Your task to perform on an android device: turn off translation in the chrome app Image 0: 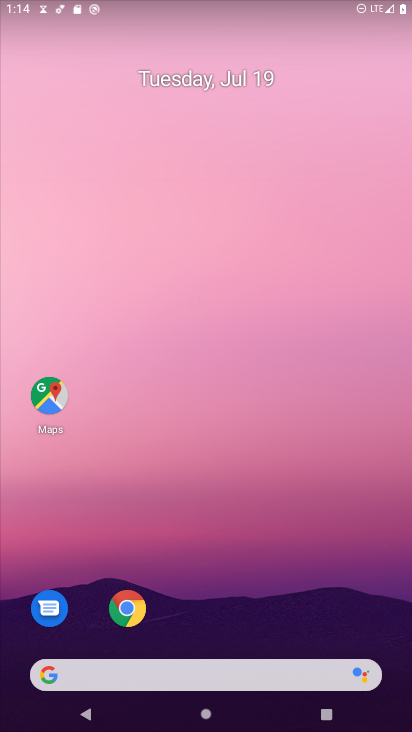
Step 0: drag from (207, 674) to (276, 5)
Your task to perform on an android device: turn off translation in the chrome app Image 1: 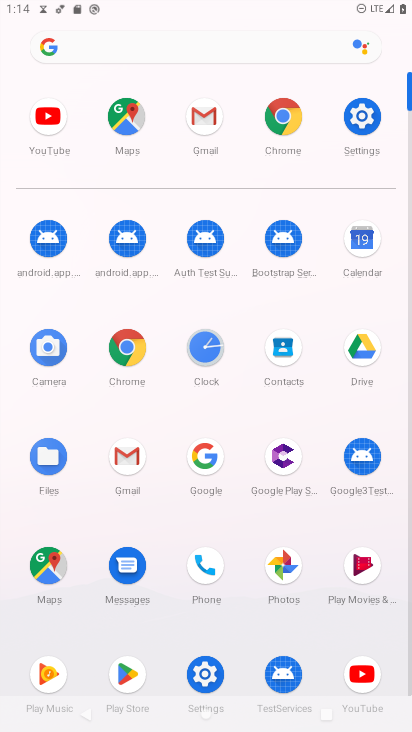
Step 1: click (130, 348)
Your task to perform on an android device: turn off translation in the chrome app Image 2: 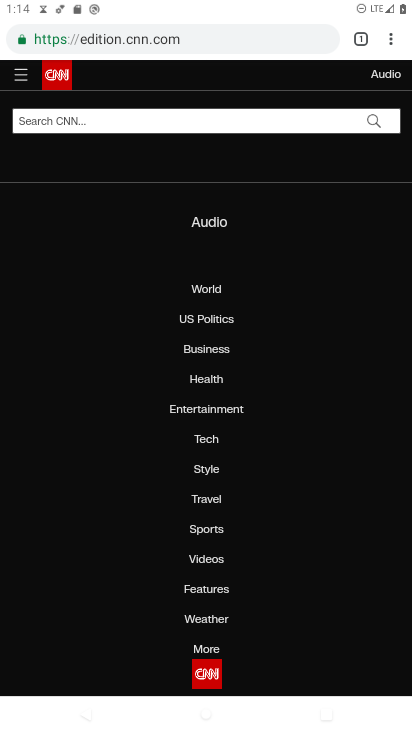
Step 2: click (227, 43)
Your task to perform on an android device: turn off translation in the chrome app Image 3: 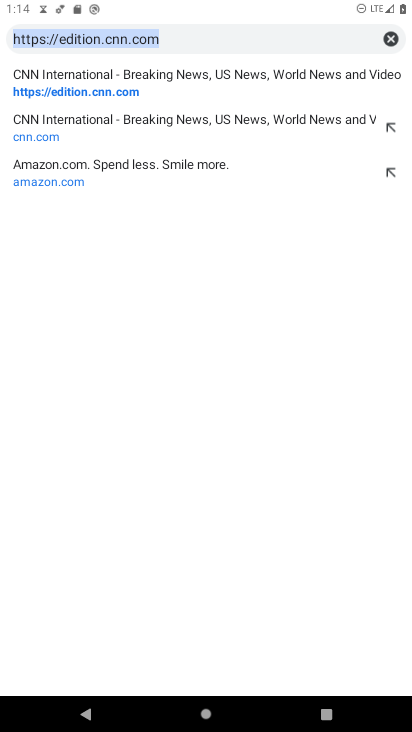
Step 3: press back button
Your task to perform on an android device: turn off translation in the chrome app Image 4: 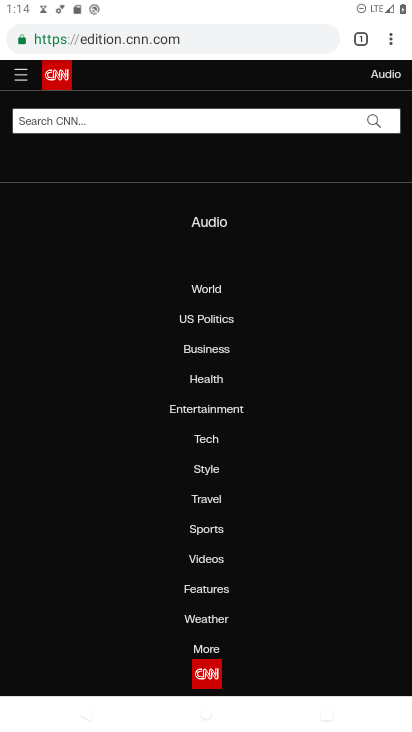
Step 4: drag from (391, 40) to (294, 427)
Your task to perform on an android device: turn off translation in the chrome app Image 5: 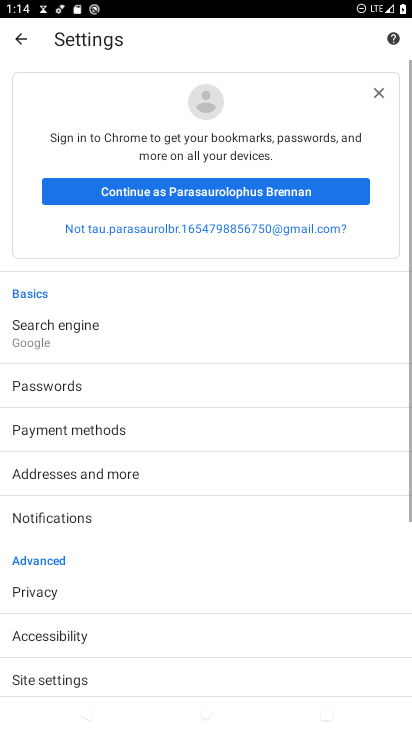
Step 5: drag from (156, 676) to (215, 384)
Your task to perform on an android device: turn off translation in the chrome app Image 6: 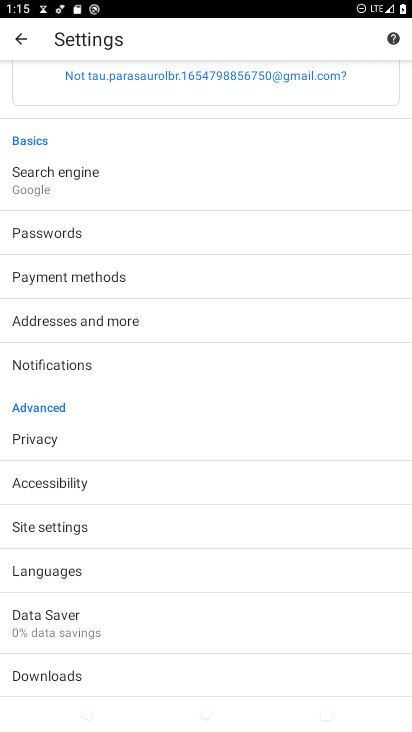
Step 6: click (79, 572)
Your task to perform on an android device: turn off translation in the chrome app Image 7: 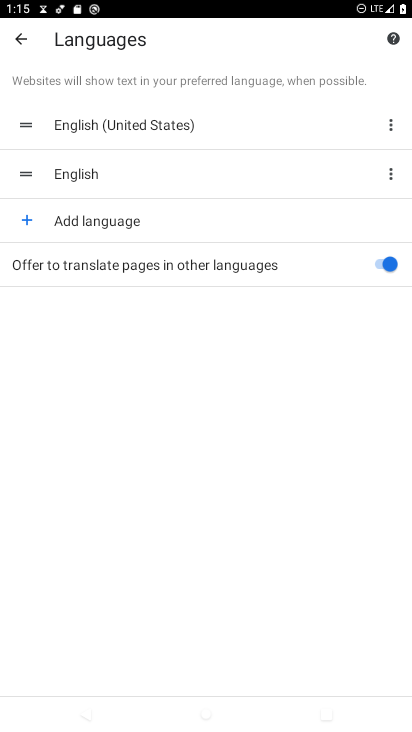
Step 7: click (381, 261)
Your task to perform on an android device: turn off translation in the chrome app Image 8: 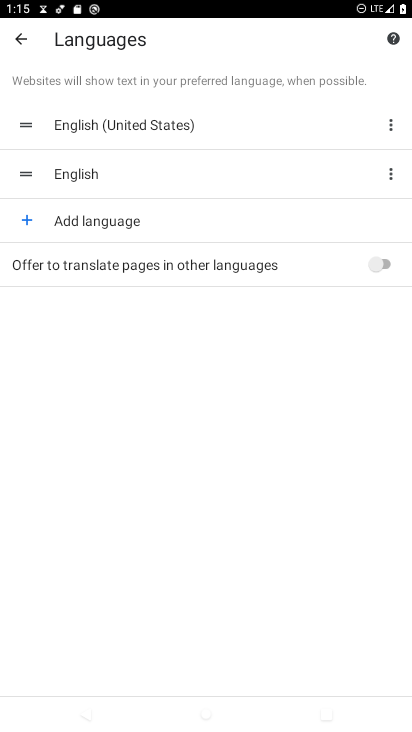
Step 8: task complete